Your task to perform on an android device: turn on the 24-hour format for clock Image 0: 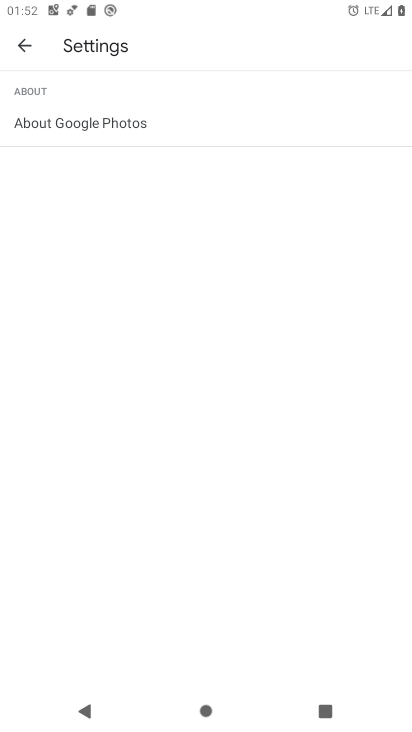
Step 0: press home button
Your task to perform on an android device: turn on the 24-hour format for clock Image 1: 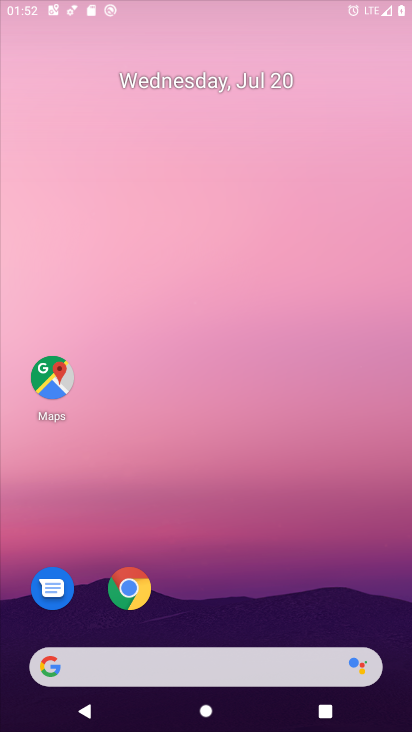
Step 1: drag from (204, 650) to (221, 143)
Your task to perform on an android device: turn on the 24-hour format for clock Image 2: 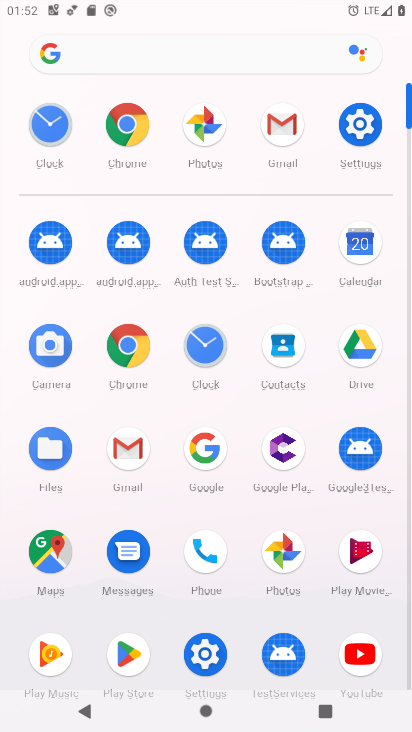
Step 2: click (208, 339)
Your task to perform on an android device: turn on the 24-hour format for clock Image 3: 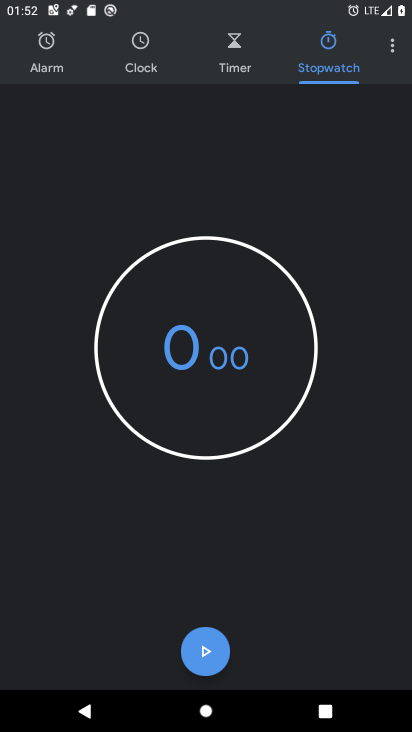
Step 3: click (389, 50)
Your task to perform on an android device: turn on the 24-hour format for clock Image 4: 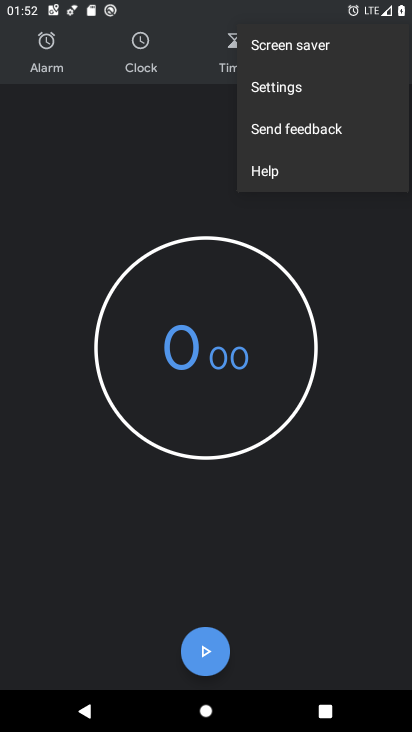
Step 4: click (302, 86)
Your task to perform on an android device: turn on the 24-hour format for clock Image 5: 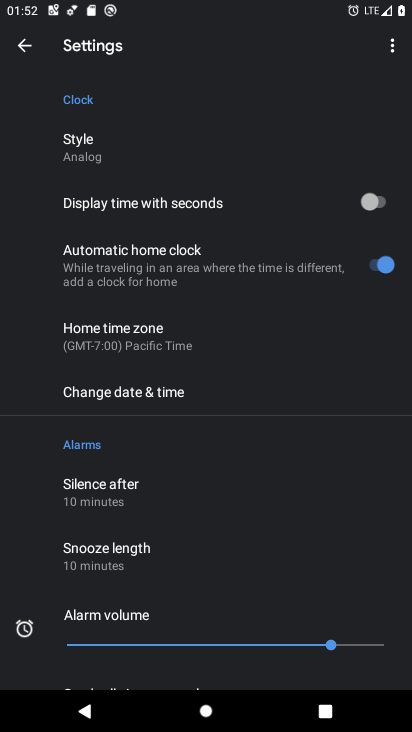
Step 5: click (189, 399)
Your task to perform on an android device: turn on the 24-hour format for clock Image 6: 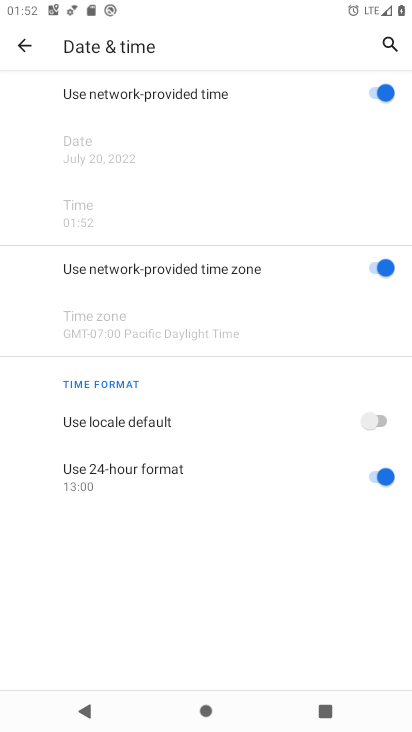
Step 6: task complete